Your task to perform on an android device: search for starred emails in the gmail app Image 0: 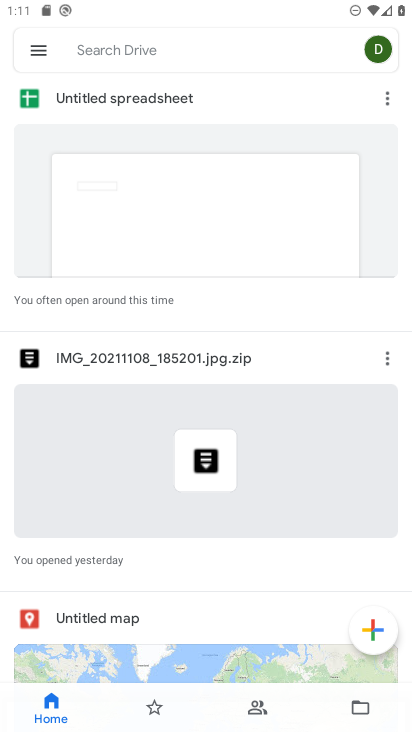
Step 0: press home button
Your task to perform on an android device: search for starred emails in the gmail app Image 1: 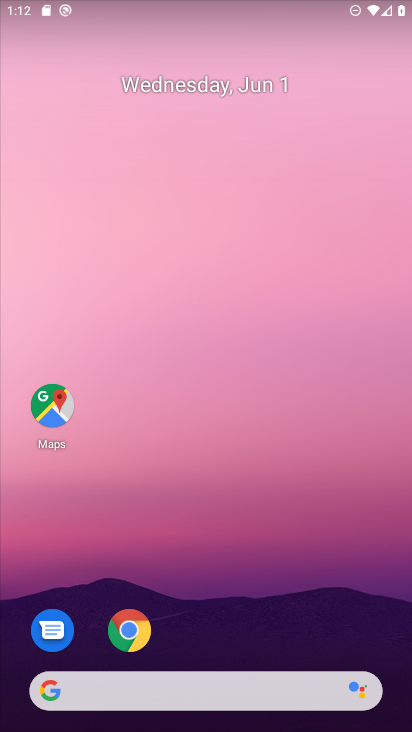
Step 1: drag from (266, 635) to (265, 207)
Your task to perform on an android device: search for starred emails in the gmail app Image 2: 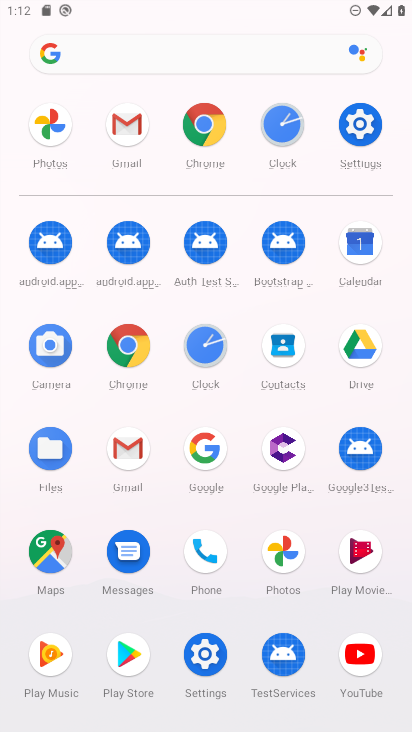
Step 2: click (121, 131)
Your task to perform on an android device: search for starred emails in the gmail app Image 3: 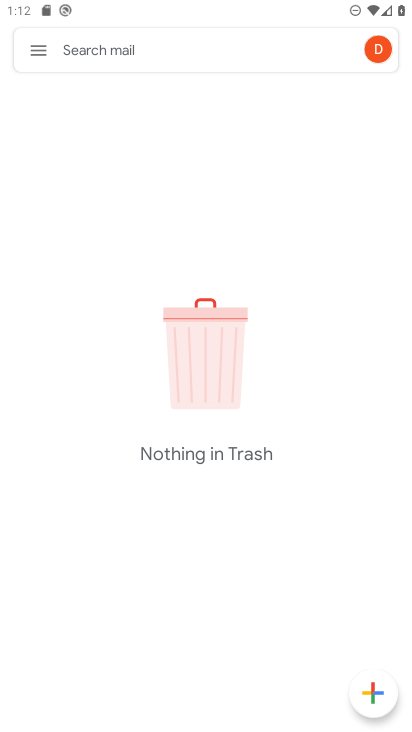
Step 3: click (37, 52)
Your task to perform on an android device: search for starred emails in the gmail app Image 4: 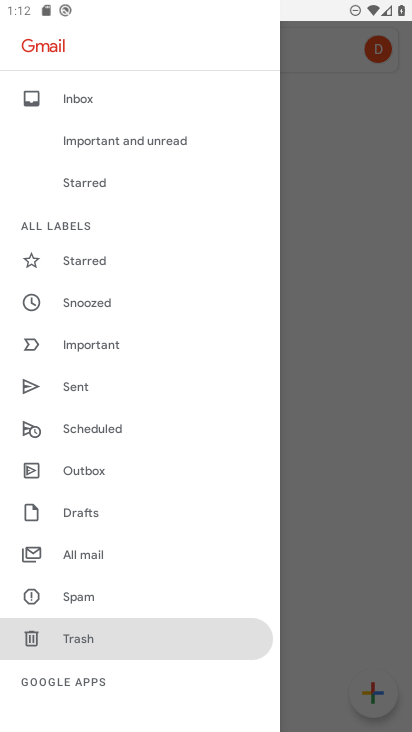
Step 4: click (88, 264)
Your task to perform on an android device: search for starred emails in the gmail app Image 5: 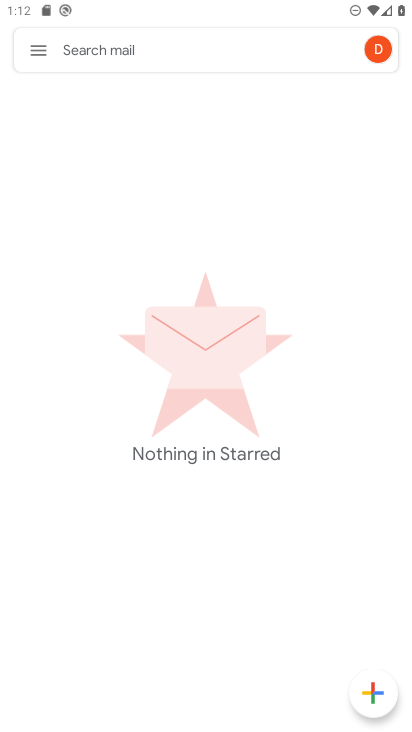
Step 5: task complete